Your task to perform on an android device: turn on improve location accuracy Image 0: 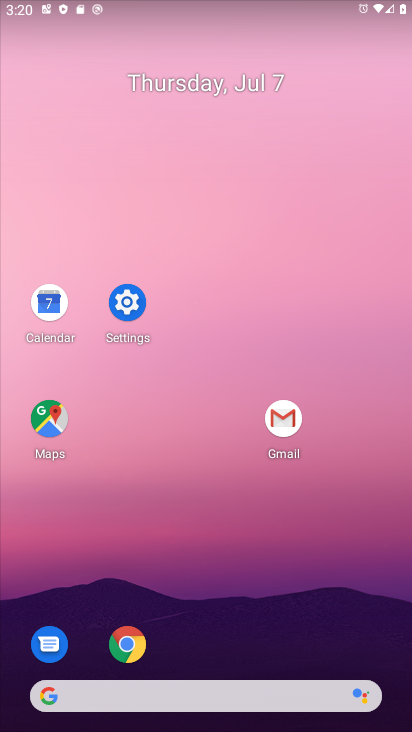
Step 0: click (132, 287)
Your task to perform on an android device: turn on improve location accuracy Image 1: 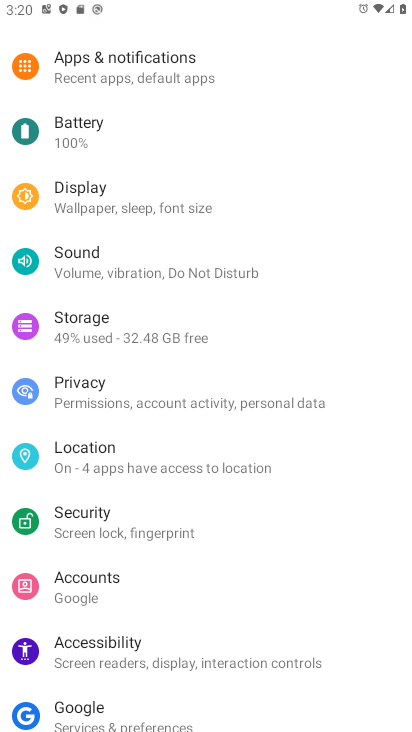
Step 1: click (76, 445)
Your task to perform on an android device: turn on improve location accuracy Image 2: 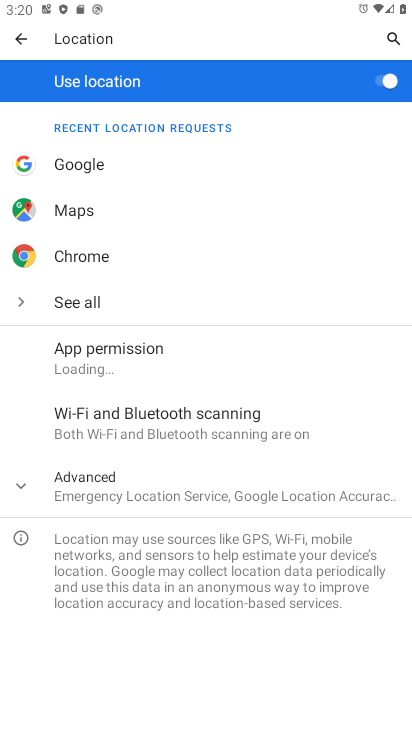
Step 2: click (29, 483)
Your task to perform on an android device: turn on improve location accuracy Image 3: 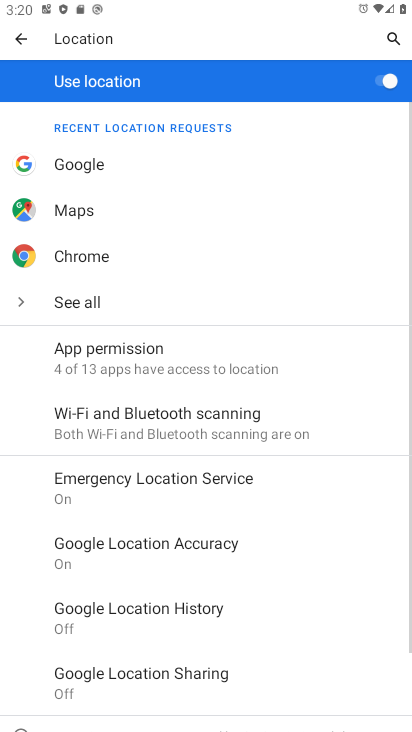
Step 3: click (131, 542)
Your task to perform on an android device: turn on improve location accuracy Image 4: 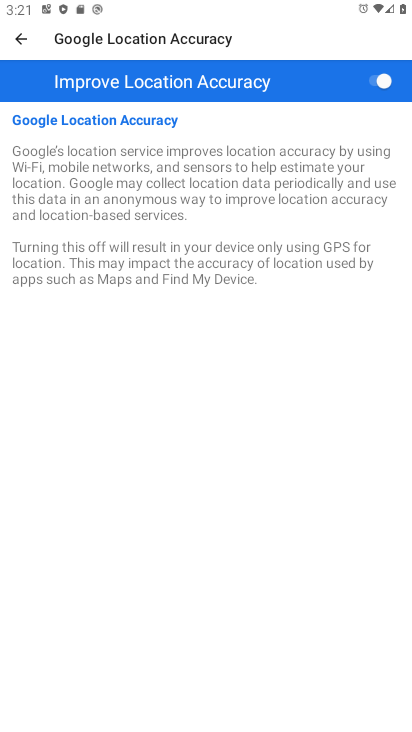
Step 4: task complete